Your task to perform on an android device: set the timer Image 0: 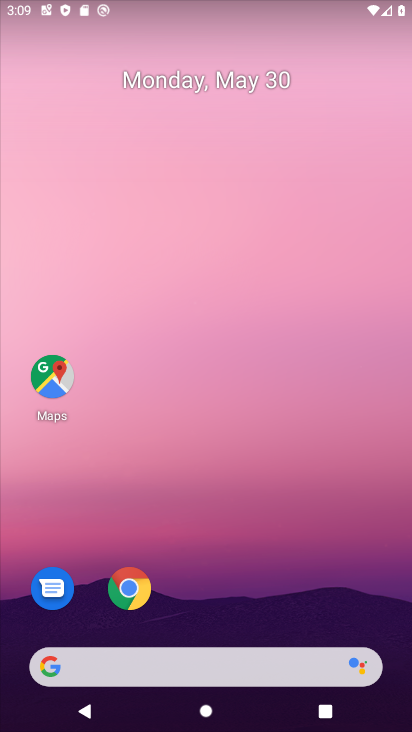
Step 0: drag from (285, 564) to (279, 17)
Your task to perform on an android device: set the timer Image 1: 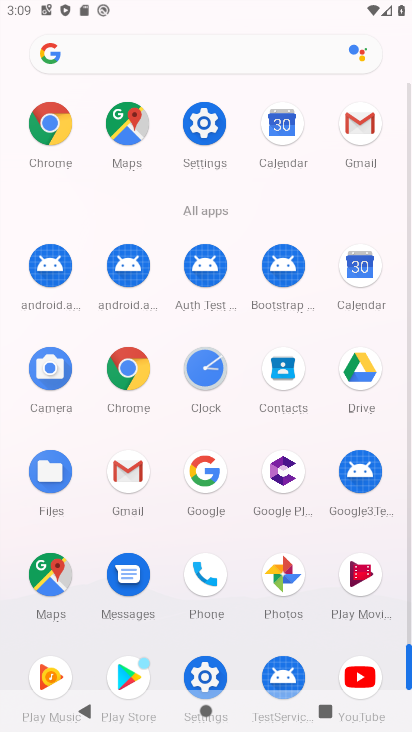
Step 1: drag from (11, 477) to (10, 153)
Your task to perform on an android device: set the timer Image 2: 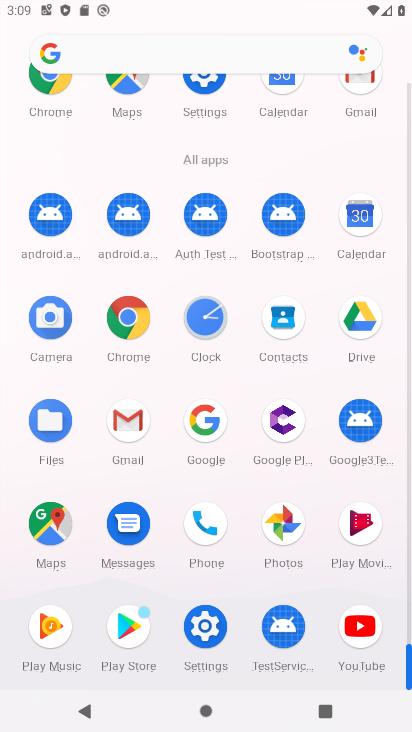
Step 2: click (203, 314)
Your task to perform on an android device: set the timer Image 3: 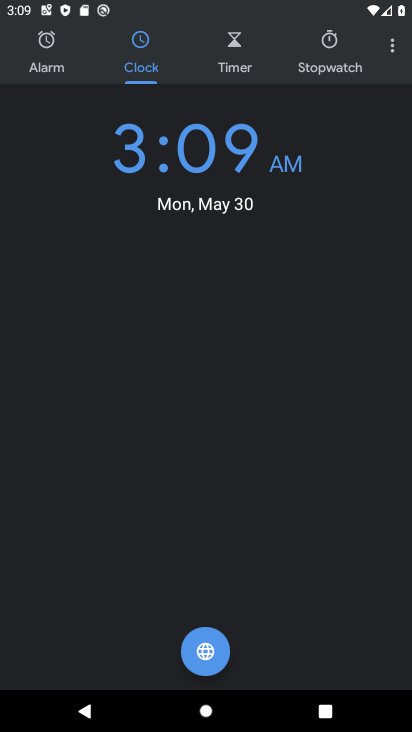
Step 3: click (232, 48)
Your task to perform on an android device: set the timer Image 4: 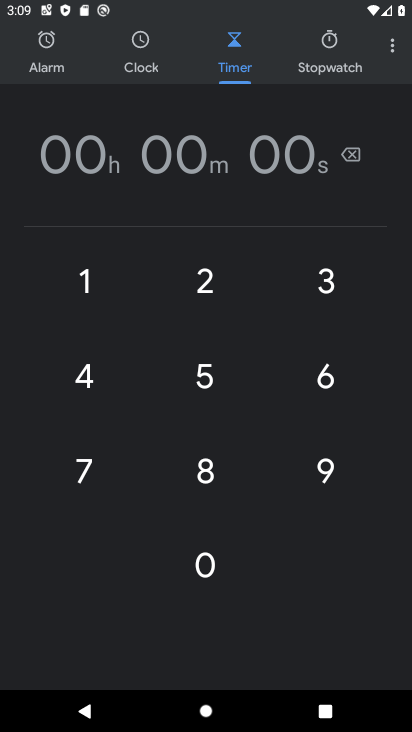
Step 4: click (215, 281)
Your task to perform on an android device: set the timer Image 5: 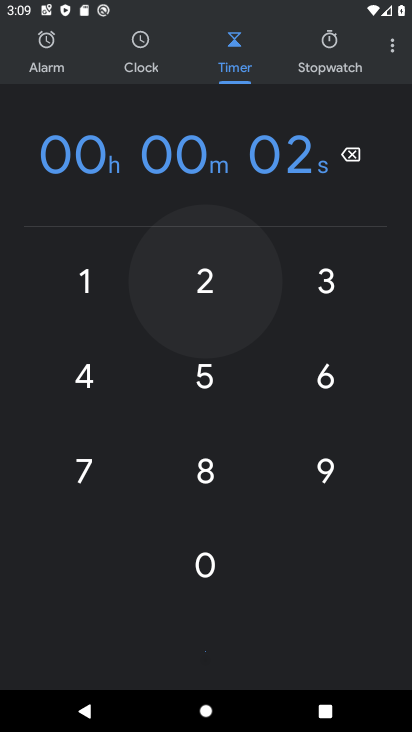
Step 5: click (196, 385)
Your task to perform on an android device: set the timer Image 6: 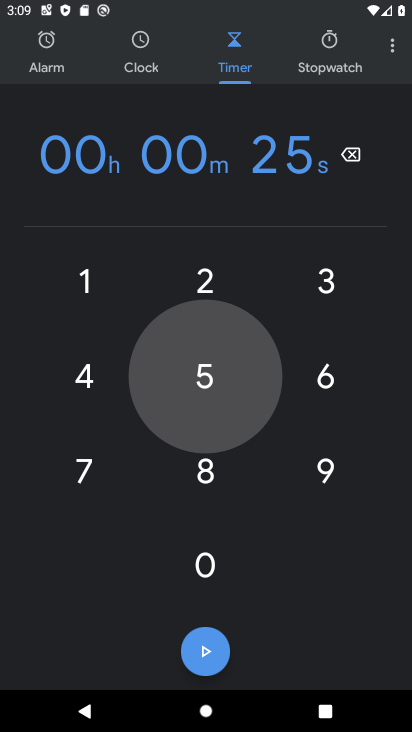
Step 6: click (196, 475)
Your task to perform on an android device: set the timer Image 7: 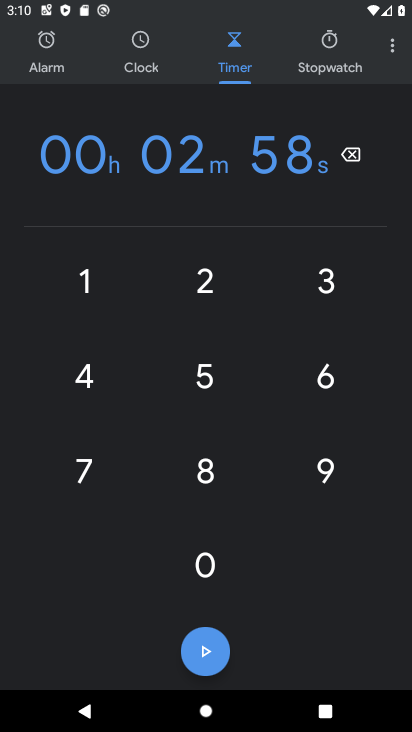
Step 7: click (203, 636)
Your task to perform on an android device: set the timer Image 8: 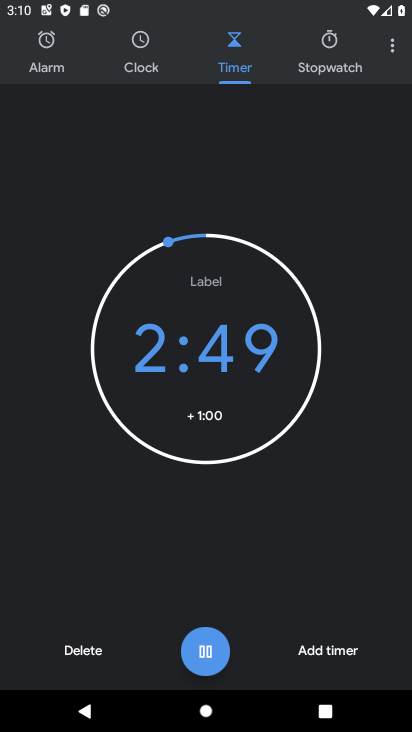
Step 8: task complete